Your task to perform on an android device: Toggle the flashlight Image 0: 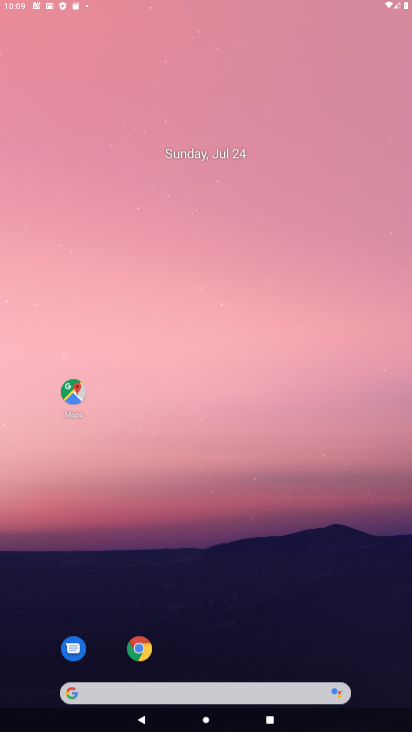
Step 0: drag from (220, 629) to (191, 0)
Your task to perform on an android device: Toggle the flashlight Image 1: 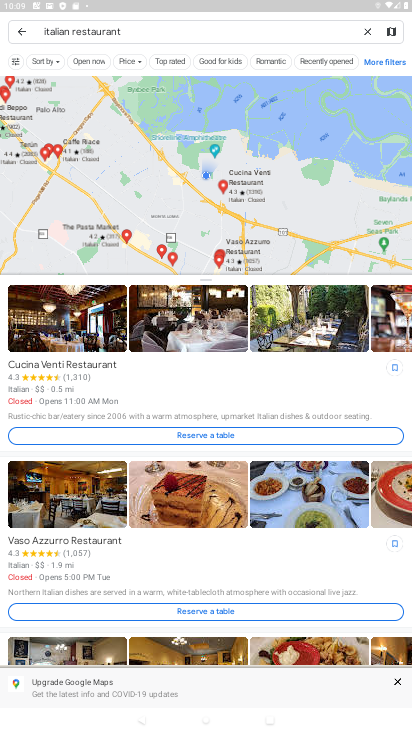
Step 1: press home button
Your task to perform on an android device: Toggle the flashlight Image 2: 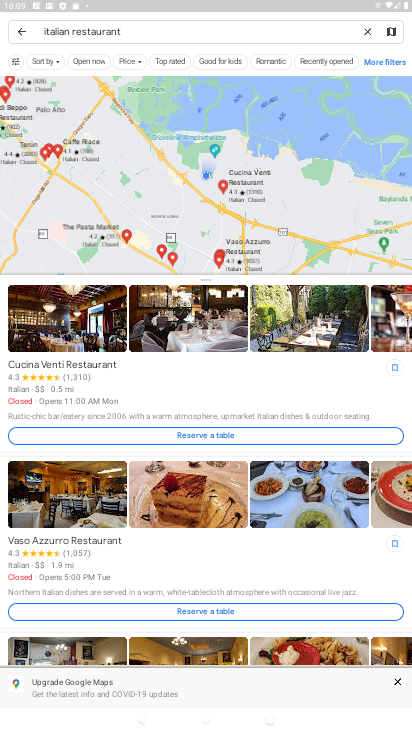
Step 2: click (346, 255)
Your task to perform on an android device: Toggle the flashlight Image 3: 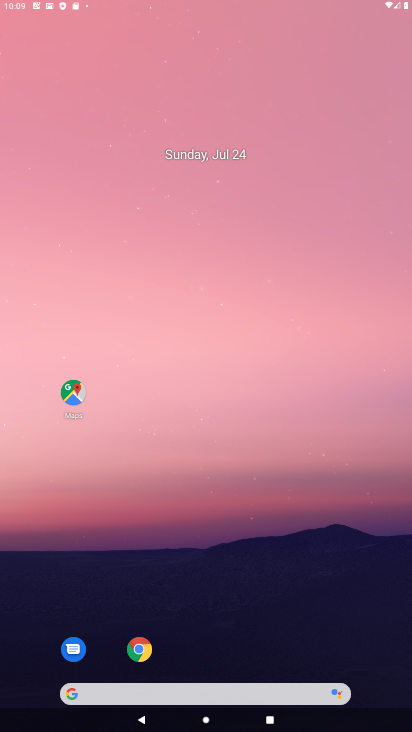
Step 3: drag from (229, 151) to (241, 11)
Your task to perform on an android device: Toggle the flashlight Image 4: 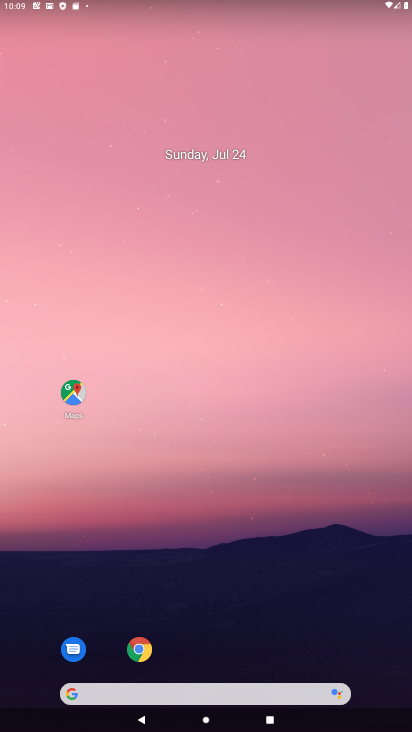
Step 4: drag from (271, 642) to (135, 3)
Your task to perform on an android device: Toggle the flashlight Image 5: 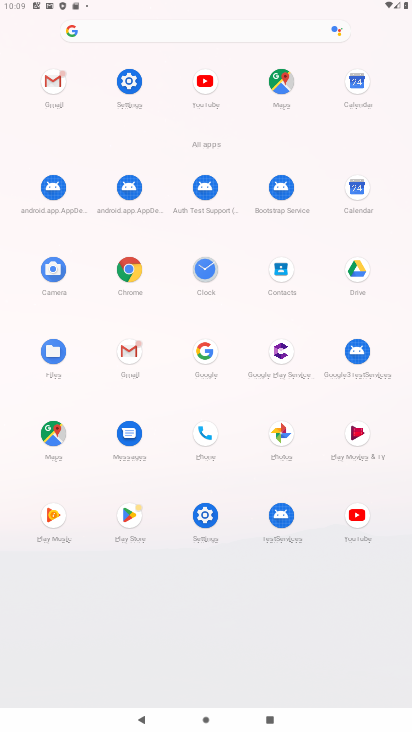
Step 5: click (118, 116)
Your task to perform on an android device: Toggle the flashlight Image 6: 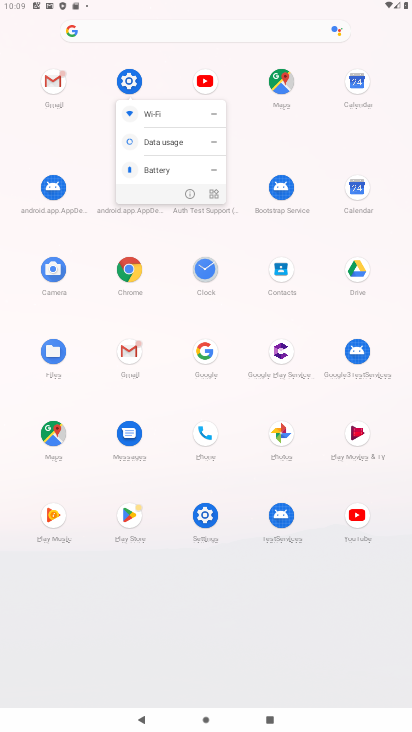
Step 6: click (131, 83)
Your task to perform on an android device: Toggle the flashlight Image 7: 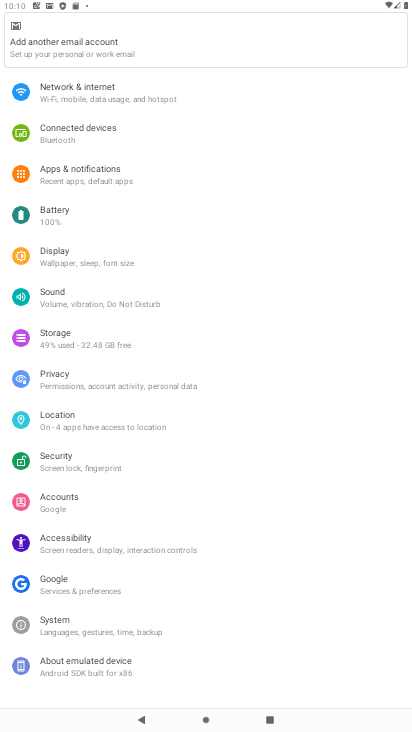
Step 7: task complete